Your task to perform on an android device: Is it going to rain tomorrow? Image 0: 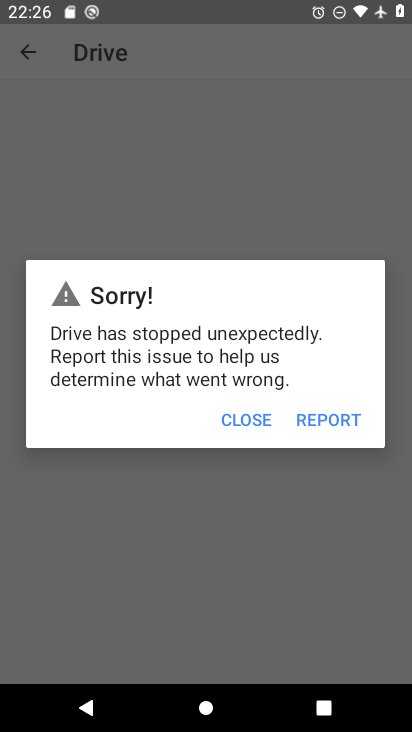
Step 0: press home button
Your task to perform on an android device: Is it going to rain tomorrow? Image 1: 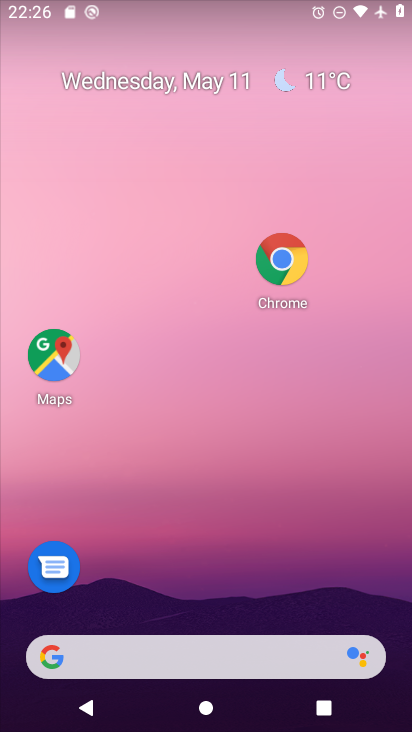
Step 1: click (326, 87)
Your task to perform on an android device: Is it going to rain tomorrow? Image 2: 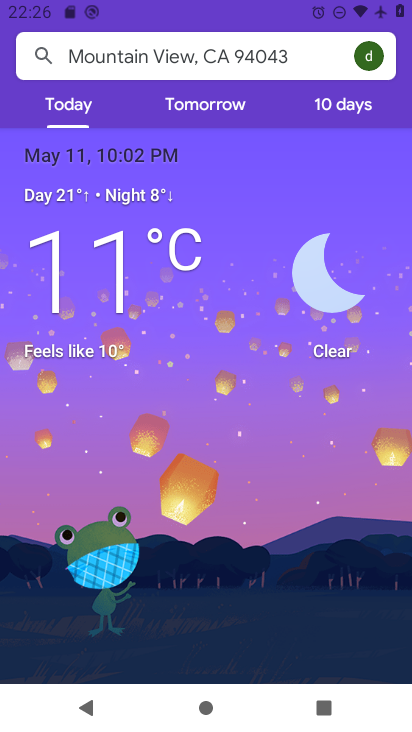
Step 2: click (201, 109)
Your task to perform on an android device: Is it going to rain tomorrow? Image 3: 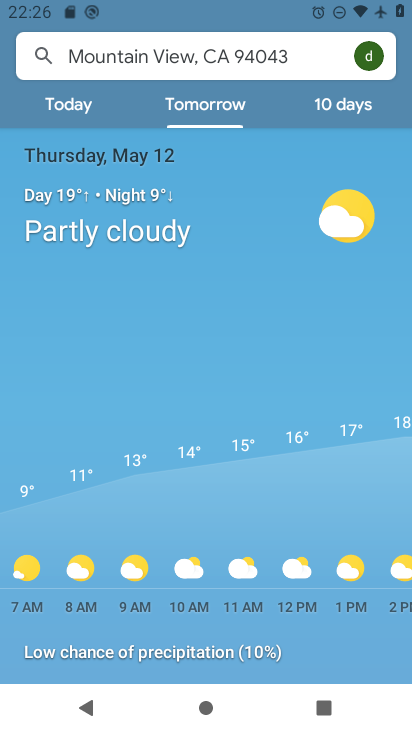
Step 3: task complete